Your task to perform on an android device: open sync settings in chrome Image 0: 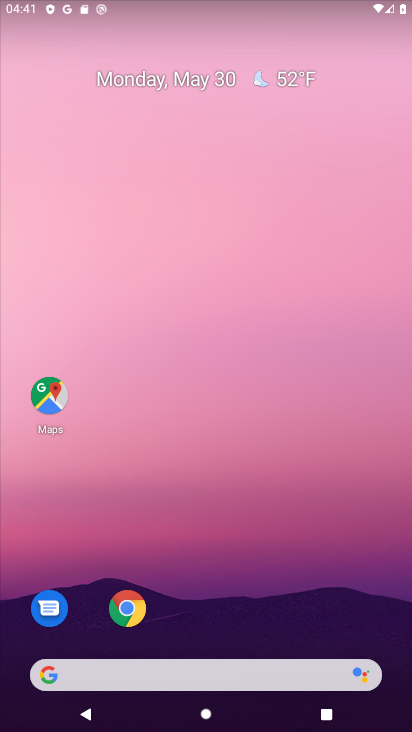
Step 0: press home button
Your task to perform on an android device: open sync settings in chrome Image 1: 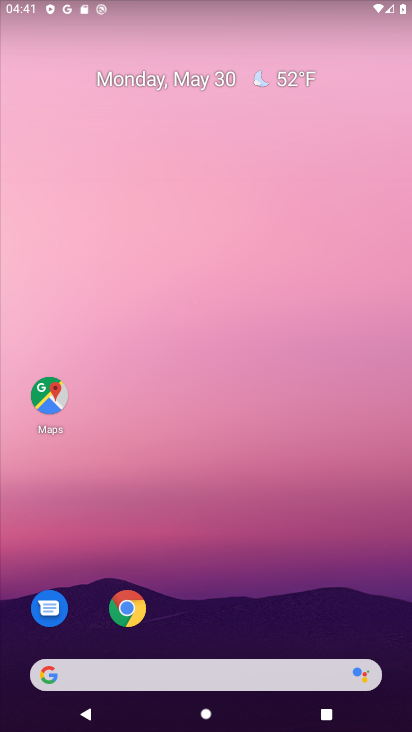
Step 1: click (133, 609)
Your task to perform on an android device: open sync settings in chrome Image 2: 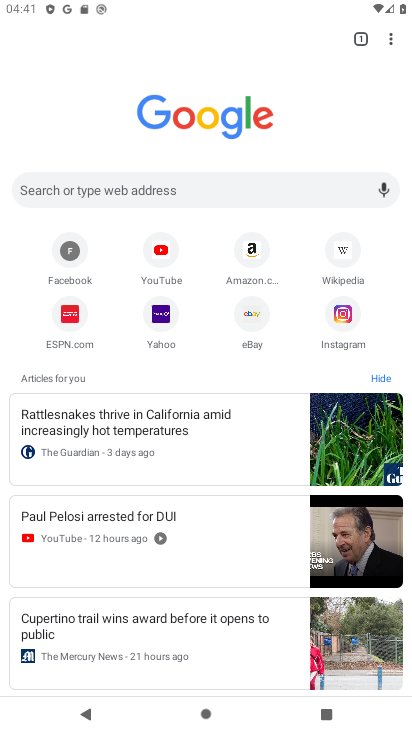
Step 2: click (386, 39)
Your task to perform on an android device: open sync settings in chrome Image 3: 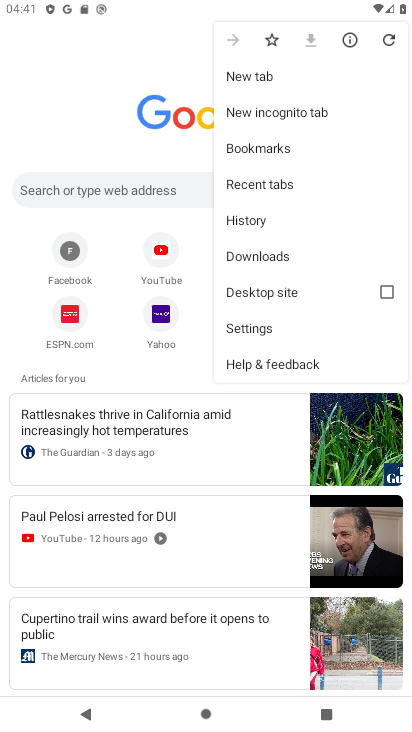
Step 3: click (275, 323)
Your task to perform on an android device: open sync settings in chrome Image 4: 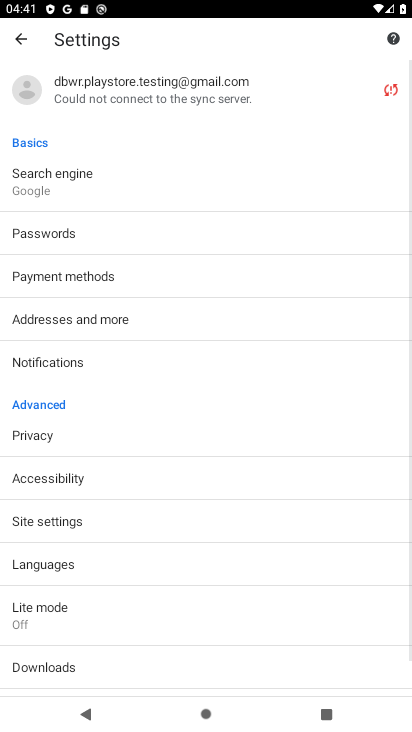
Step 4: click (103, 92)
Your task to perform on an android device: open sync settings in chrome Image 5: 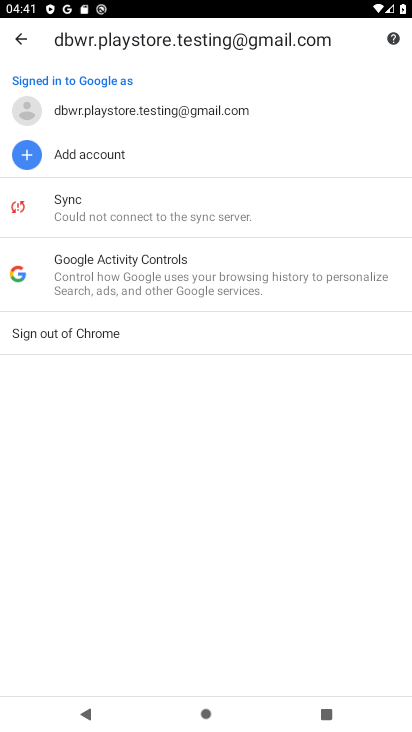
Step 5: click (87, 205)
Your task to perform on an android device: open sync settings in chrome Image 6: 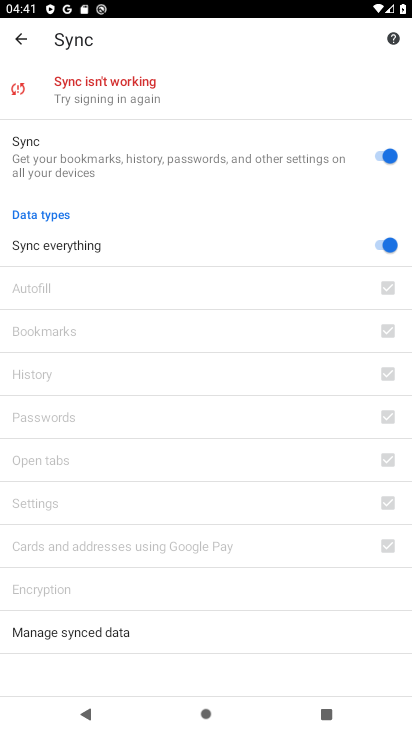
Step 6: task complete